Your task to perform on an android device: turn off notifications in google photos Image 0: 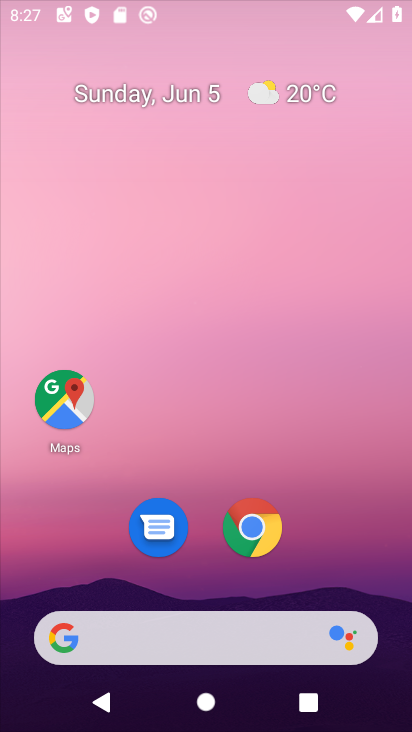
Step 0: drag from (348, 525) to (408, 9)
Your task to perform on an android device: turn off notifications in google photos Image 1: 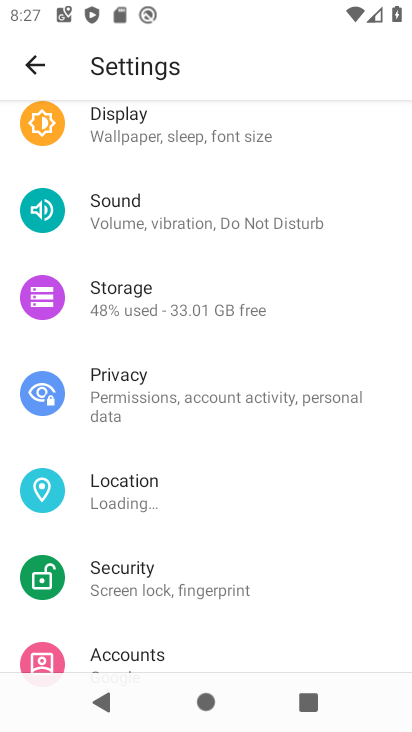
Step 1: press home button
Your task to perform on an android device: turn off notifications in google photos Image 2: 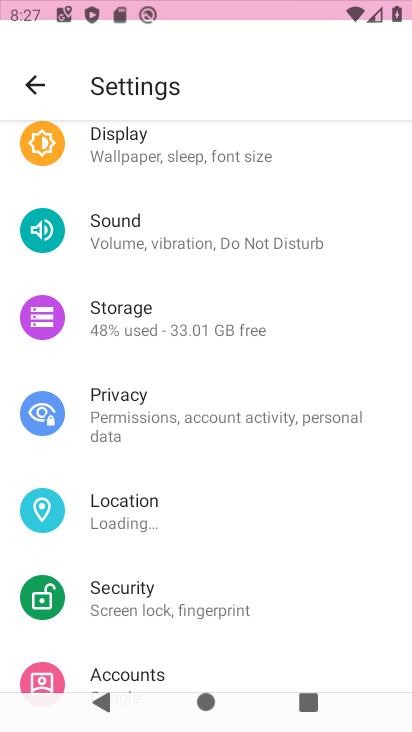
Step 2: drag from (408, 9) to (410, 517)
Your task to perform on an android device: turn off notifications in google photos Image 3: 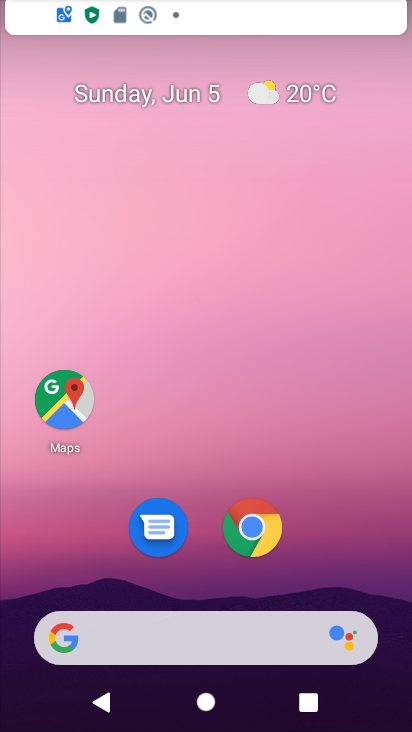
Step 3: drag from (365, 506) to (389, 23)
Your task to perform on an android device: turn off notifications in google photos Image 4: 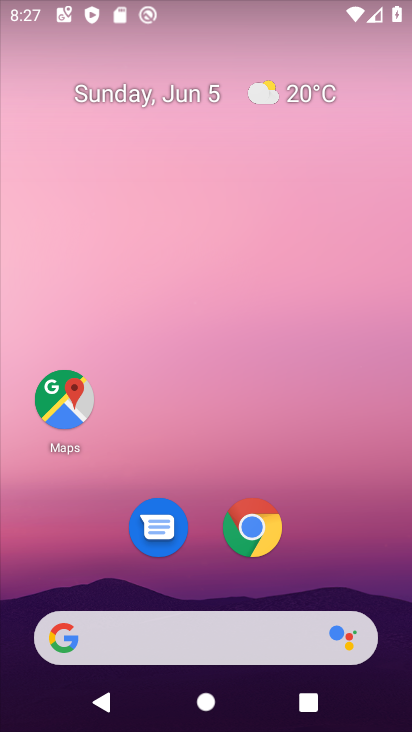
Step 4: drag from (393, 537) to (409, 108)
Your task to perform on an android device: turn off notifications in google photos Image 5: 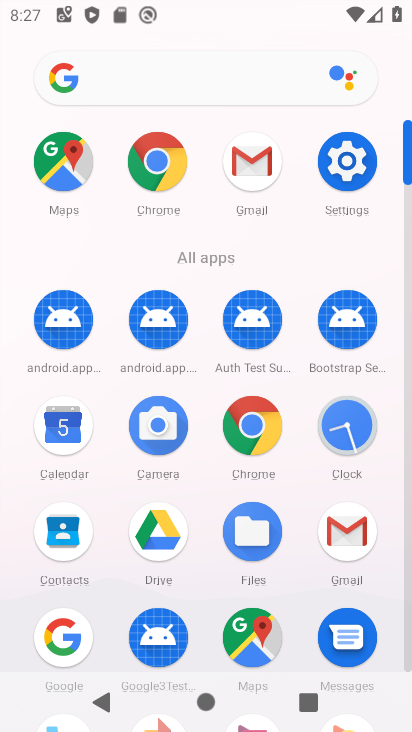
Step 5: drag from (385, 545) to (407, 155)
Your task to perform on an android device: turn off notifications in google photos Image 6: 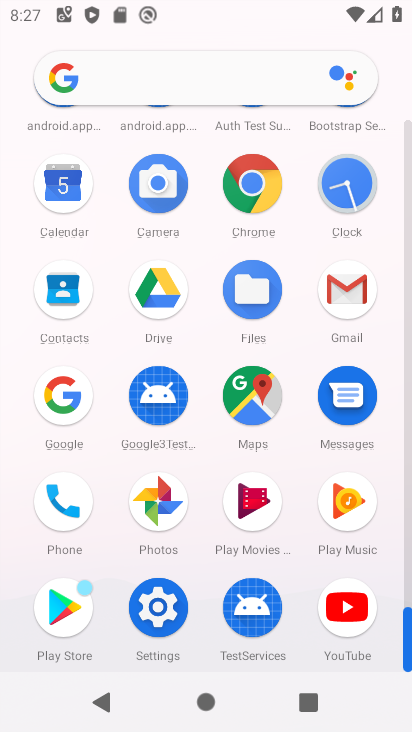
Step 6: click (143, 501)
Your task to perform on an android device: turn off notifications in google photos Image 7: 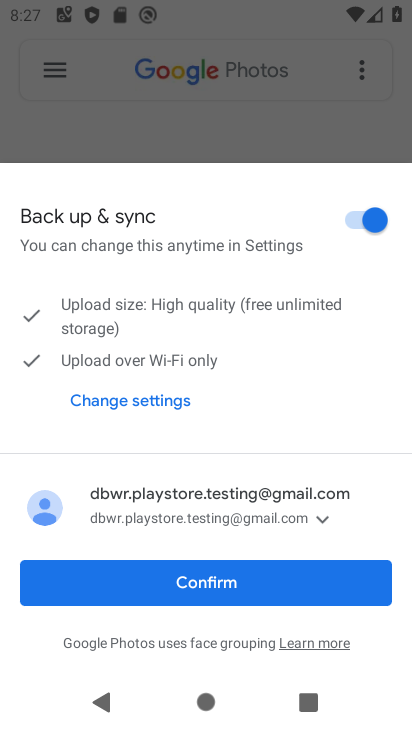
Step 7: click (245, 606)
Your task to perform on an android device: turn off notifications in google photos Image 8: 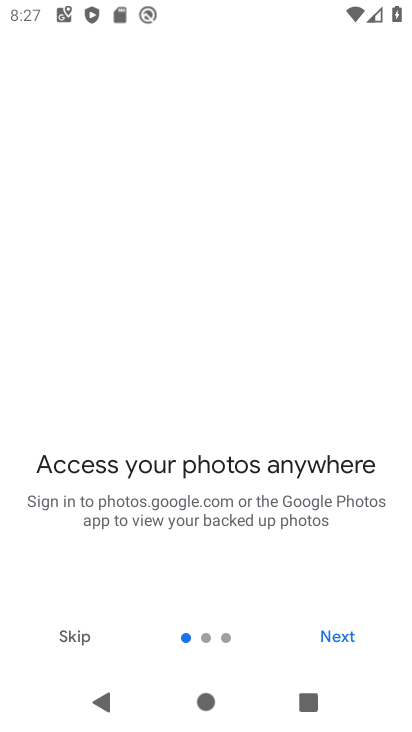
Step 8: click (320, 644)
Your task to perform on an android device: turn off notifications in google photos Image 9: 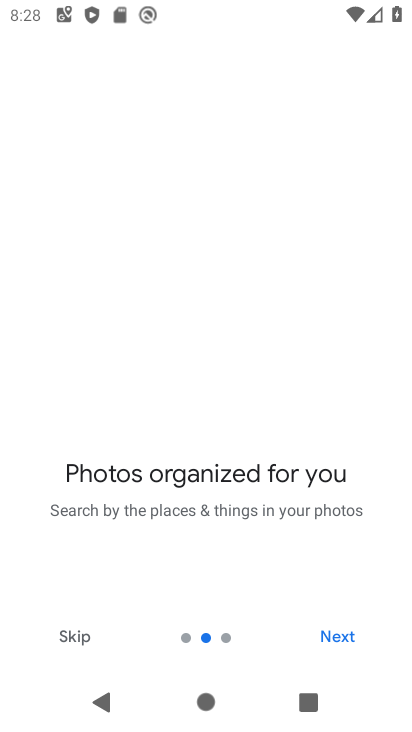
Step 9: click (348, 637)
Your task to perform on an android device: turn off notifications in google photos Image 10: 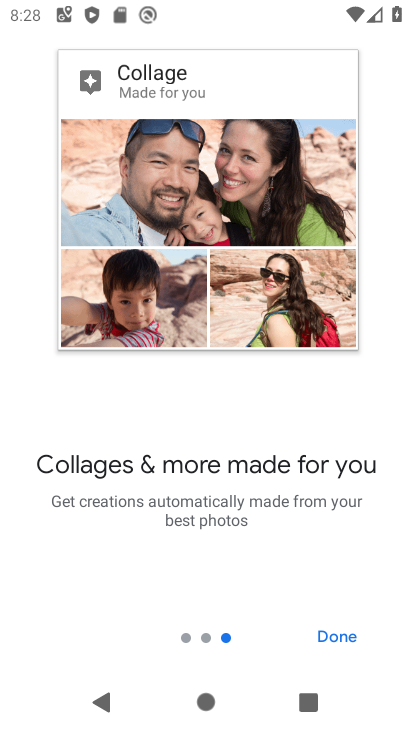
Step 10: click (345, 637)
Your task to perform on an android device: turn off notifications in google photos Image 11: 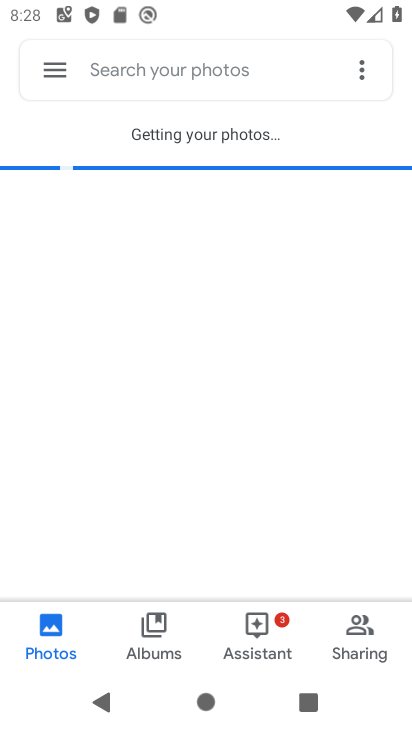
Step 11: click (62, 53)
Your task to perform on an android device: turn off notifications in google photos Image 12: 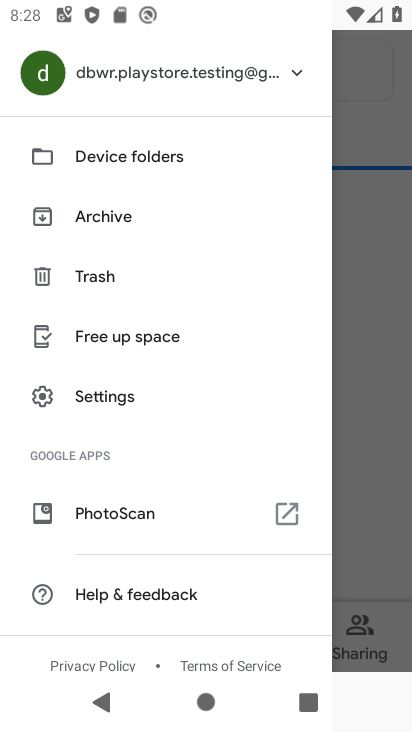
Step 12: click (109, 391)
Your task to perform on an android device: turn off notifications in google photos Image 13: 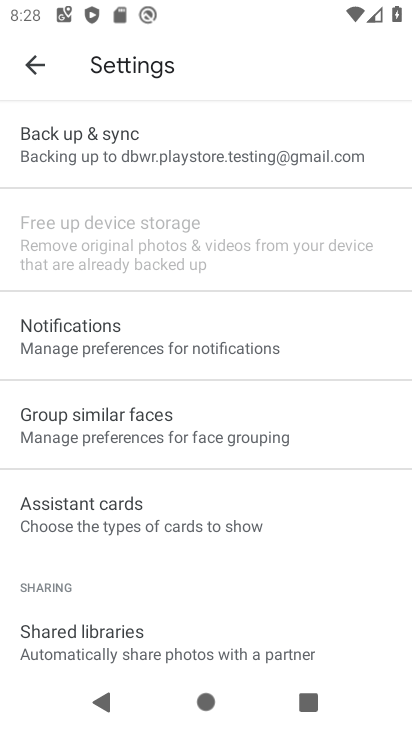
Step 13: click (142, 343)
Your task to perform on an android device: turn off notifications in google photos Image 14: 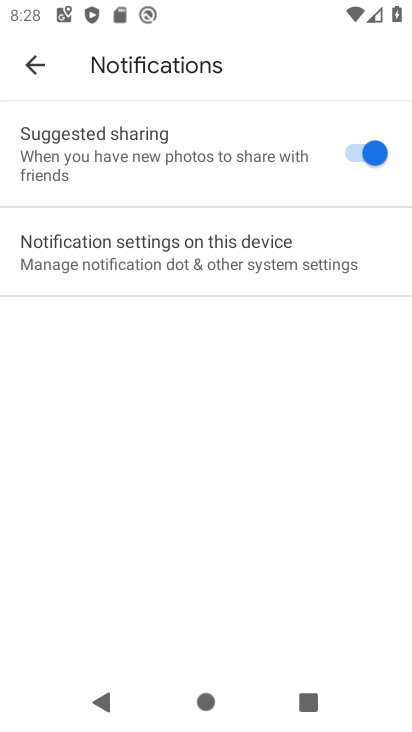
Step 14: click (267, 229)
Your task to perform on an android device: turn off notifications in google photos Image 15: 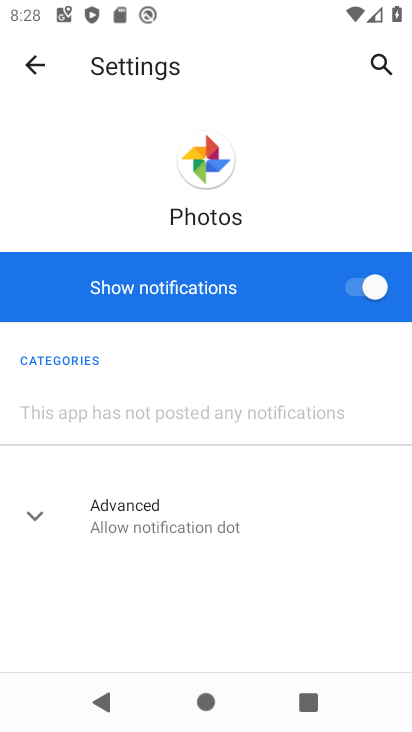
Step 15: click (379, 292)
Your task to perform on an android device: turn off notifications in google photos Image 16: 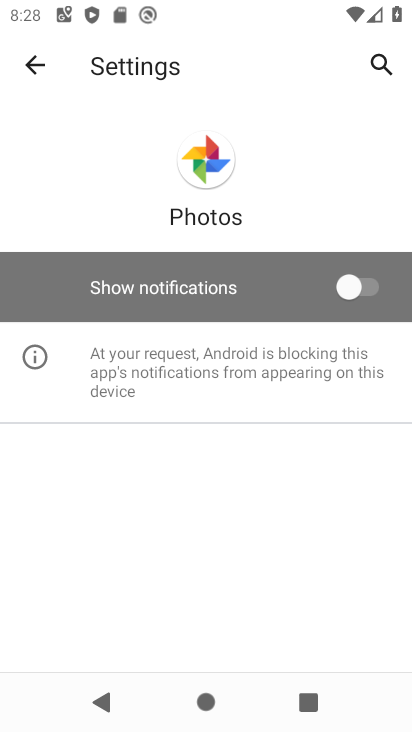
Step 16: task complete